Your task to perform on an android device: Go to Amazon Image 0: 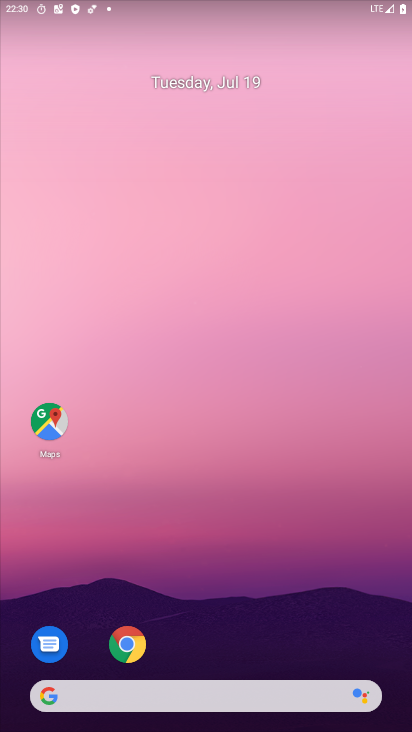
Step 0: press home button
Your task to perform on an android device: Go to Amazon Image 1: 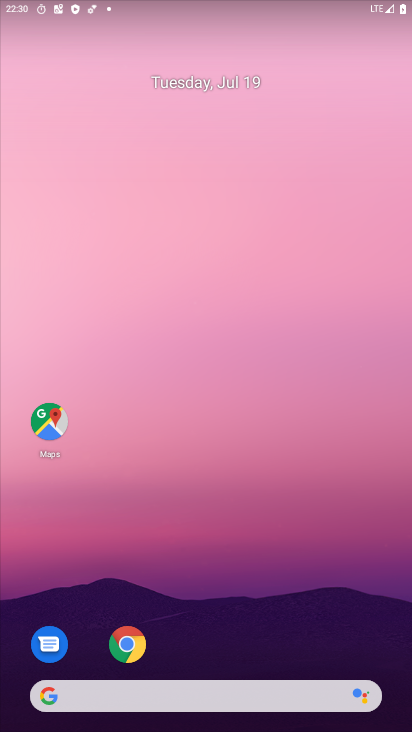
Step 1: drag from (236, 601) to (178, 216)
Your task to perform on an android device: Go to Amazon Image 2: 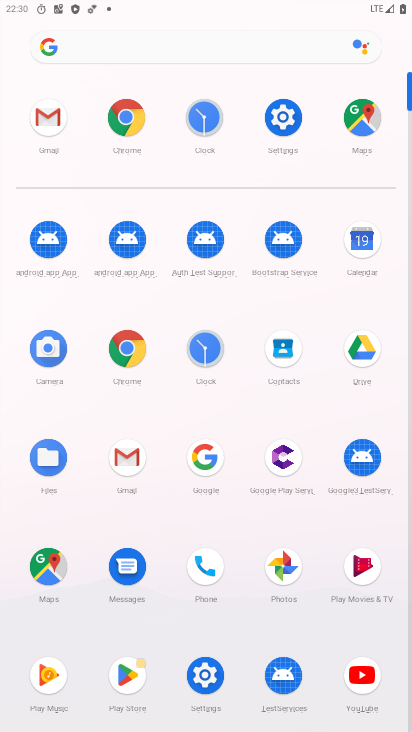
Step 2: click (136, 130)
Your task to perform on an android device: Go to Amazon Image 3: 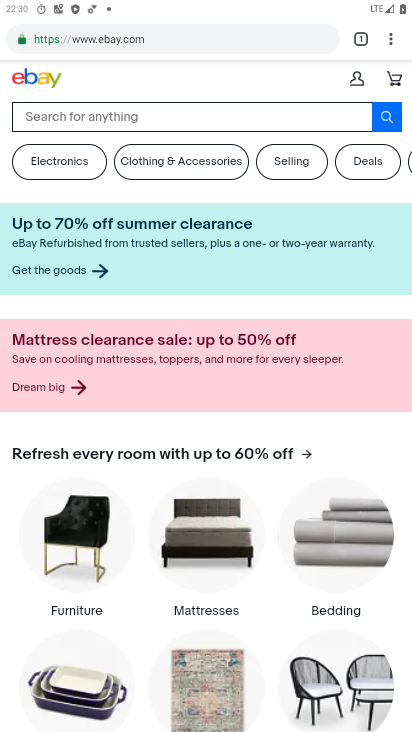
Step 3: click (175, 36)
Your task to perform on an android device: Go to Amazon Image 4: 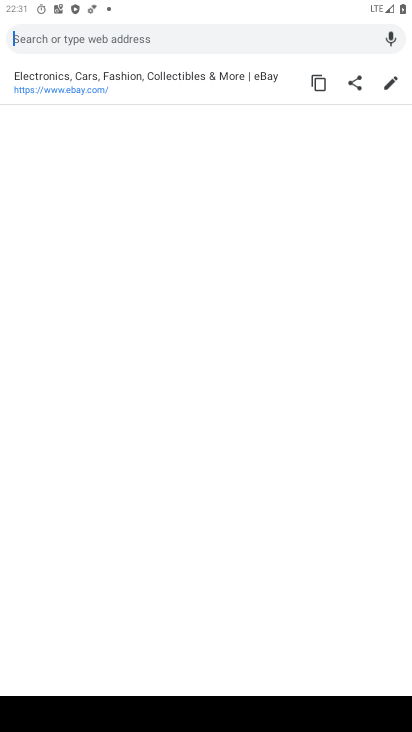
Step 4: type "Amazon"
Your task to perform on an android device: Go to Amazon Image 5: 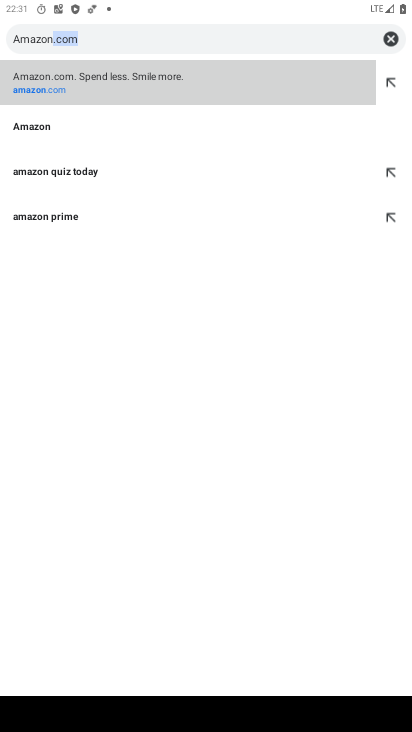
Step 5: type ""
Your task to perform on an android device: Go to Amazon Image 6: 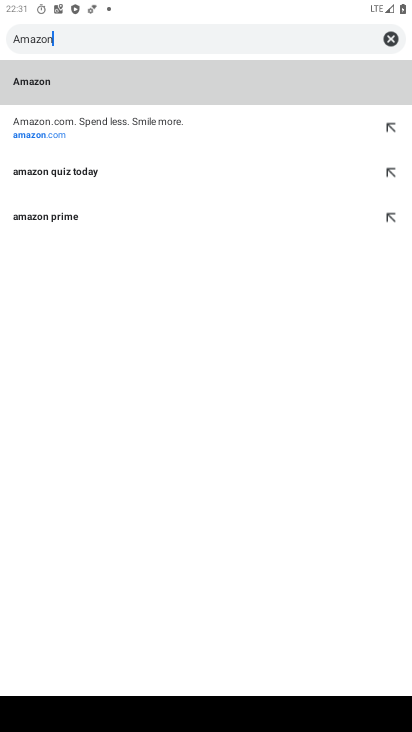
Step 6: drag from (137, 81) to (158, 148)
Your task to perform on an android device: Go to Amazon Image 7: 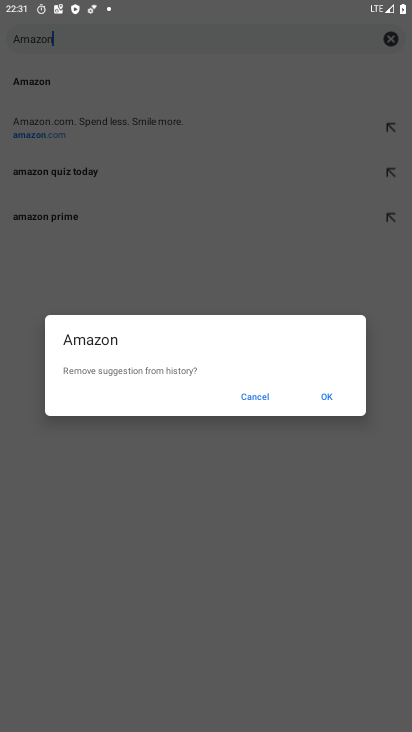
Step 7: click (152, 133)
Your task to perform on an android device: Go to Amazon Image 8: 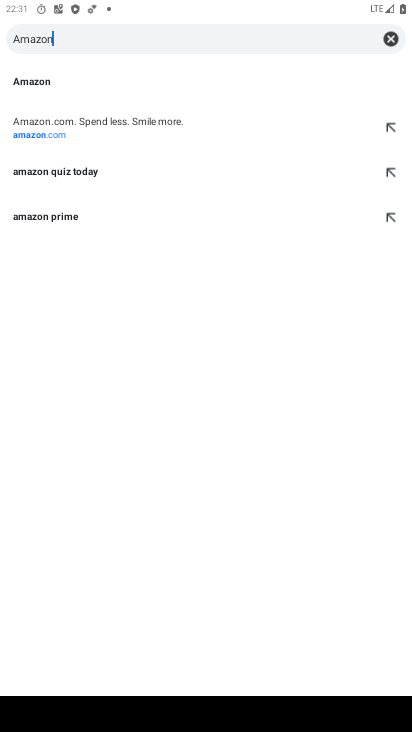
Step 8: click (144, 124)
Your task to perform on an android device: Go to Amazon Image 9: 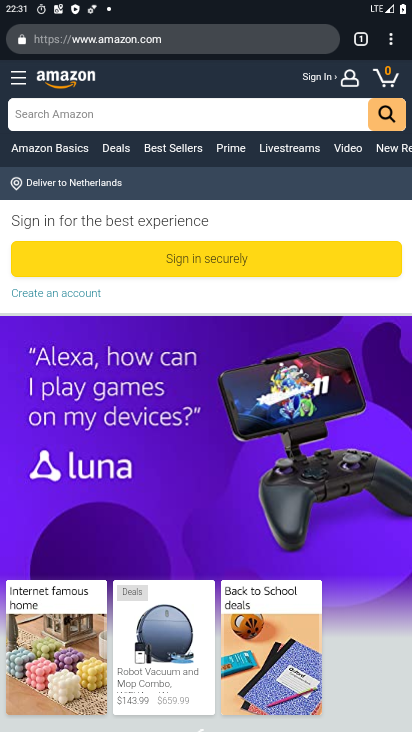
Step 9: task complete